Your task to perform on an android device: turn notification dots off Image 0: 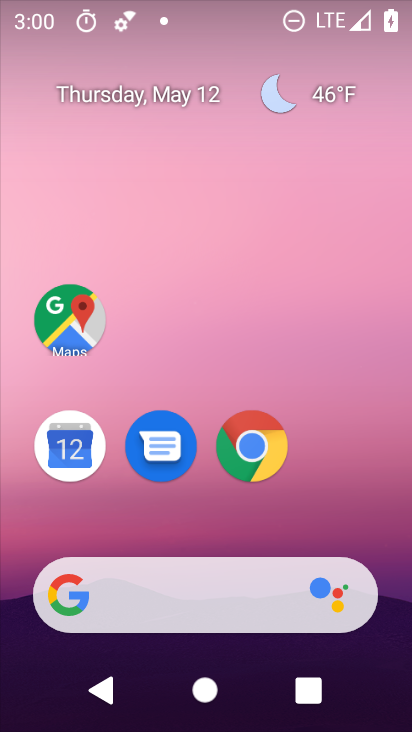
Step 0: drag from (200, 527) to (218, 190)
Your task to perform on an android device: turn notification dots off Image 1: 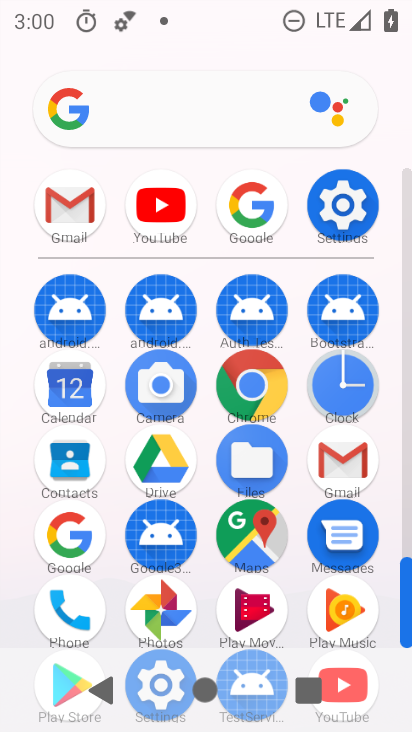
Step 1: click (314, 206)
Your task to perform on an android device: turn notification dots off Image 2: 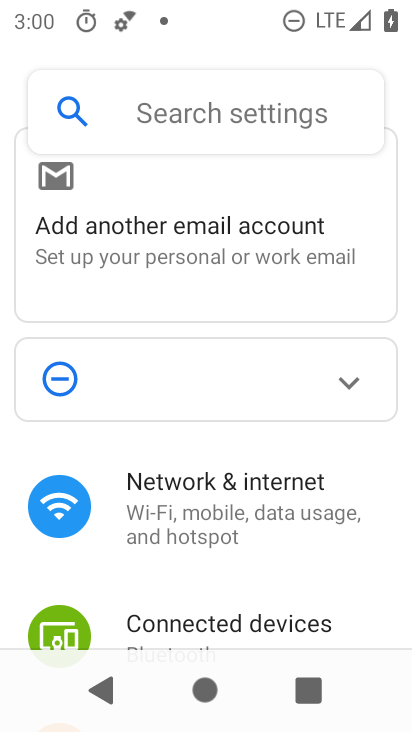
Step 2: drag from (249, 534) to (328, 245)
Your task to perform on an android device: turn notification dots off Image 3: 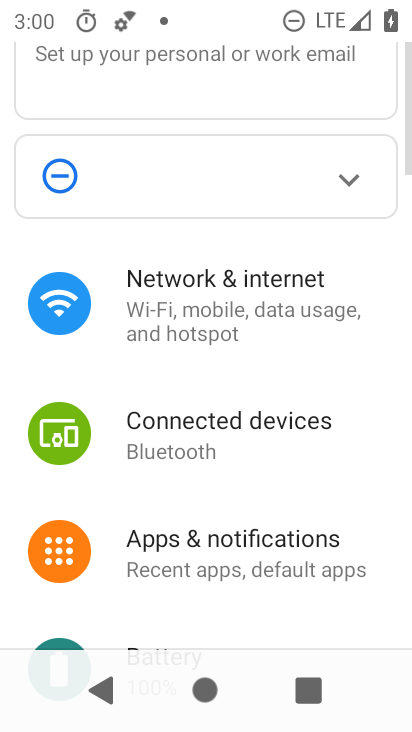
Step 3: drag from (290, 501) to (314, 272)
Your task to perform on an android device: turn notification dots off Image 4: 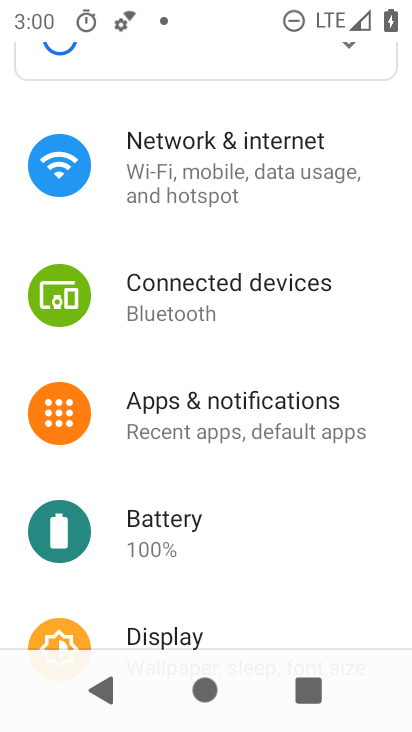
Step 4: click (250, 414)
Your task to perform on an android device: turn notification dots off Image 5: 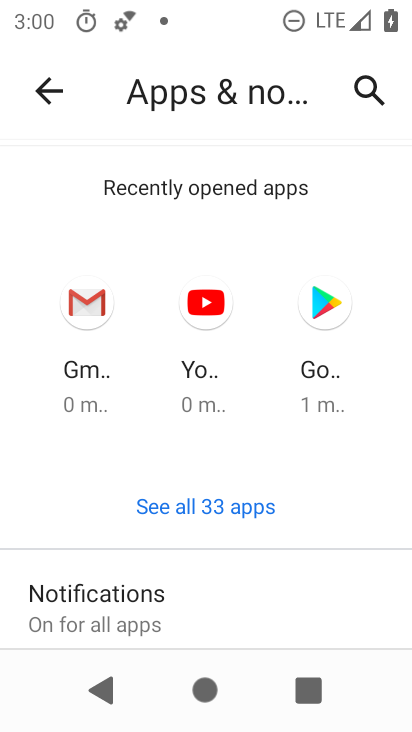
Step 5: click (168, 598)
Your task to perform on an android device: turn notification dots off Image 6: 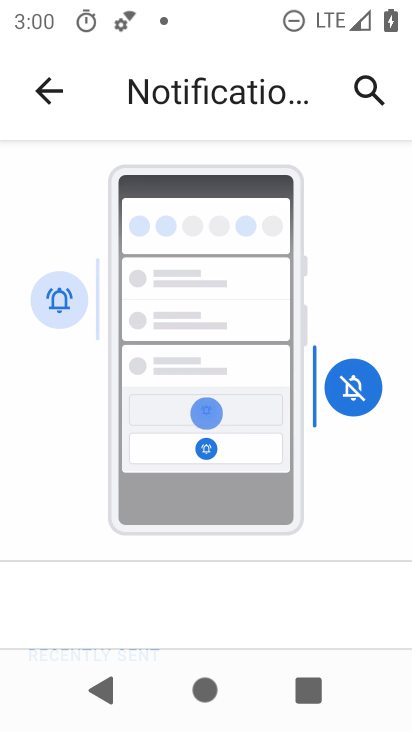
Step 6: drag from (189, 562) to (219, 272)
Your task to perform on an android device: turn notification dots off Image 7: 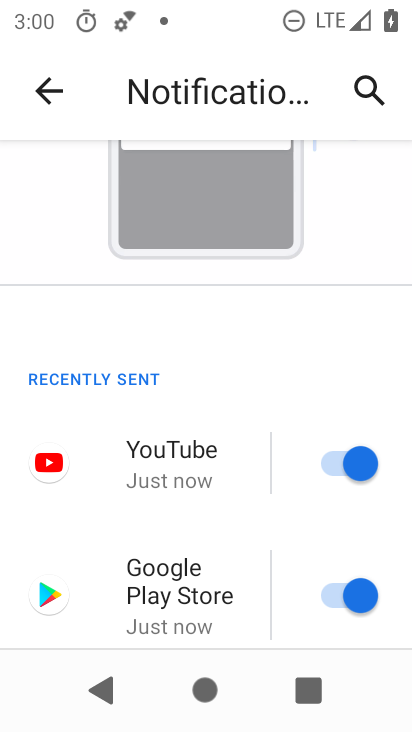
Step 7: drag from (237, 563) to (286, 227)
Your task to perform on an android device: turn notification dots off Image 8: 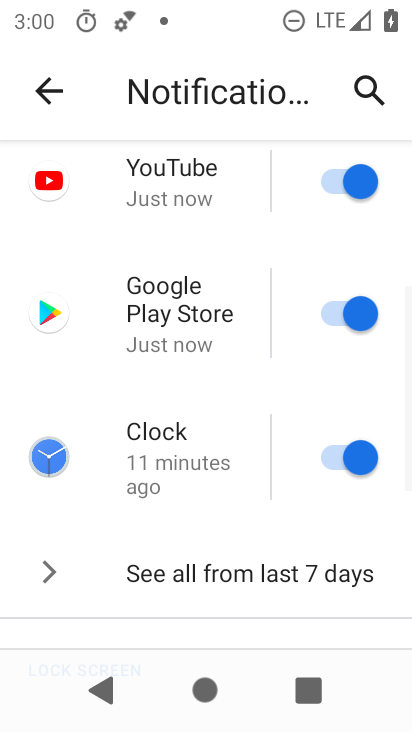
Step 8: drag from (292, 513) to (313, 194)
Your task to perform on an android device: turn notification dots off Image 9: 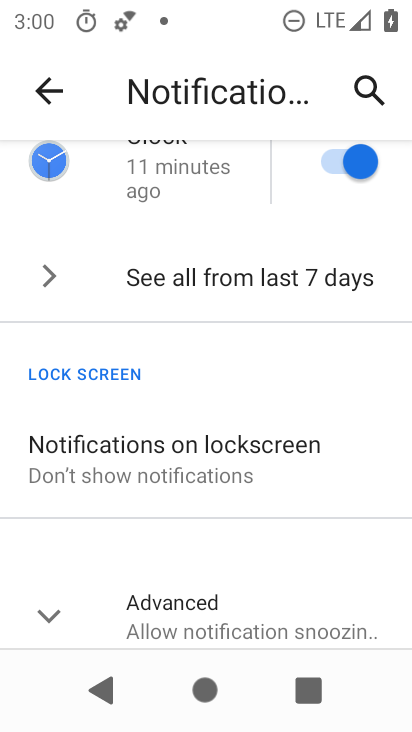
Step 9: drag from (321, 557) to (343, 305)
Your task to perform on an android device: turn notification dots off Image 10: 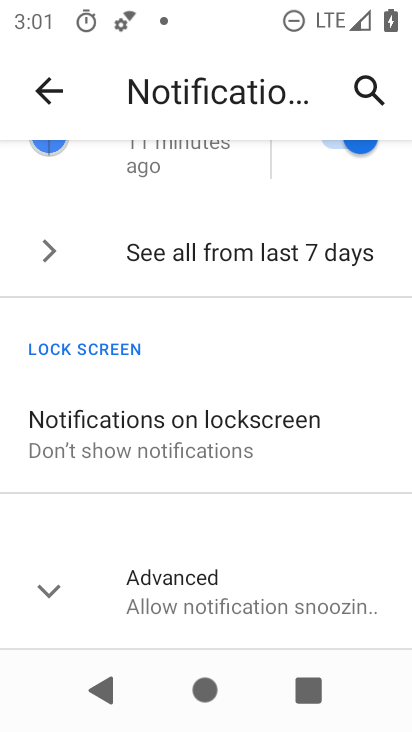
Step 10: click (293, 581)
Your task to perform on an android device: turn notification dots off Image 11: 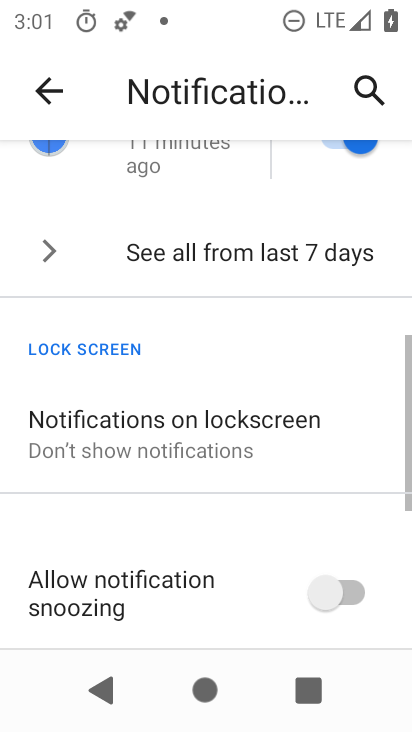
Step 11: drag from (277, 595) to (312, 264)
Your task to perform on an android device: turn notification dots off Image 12: 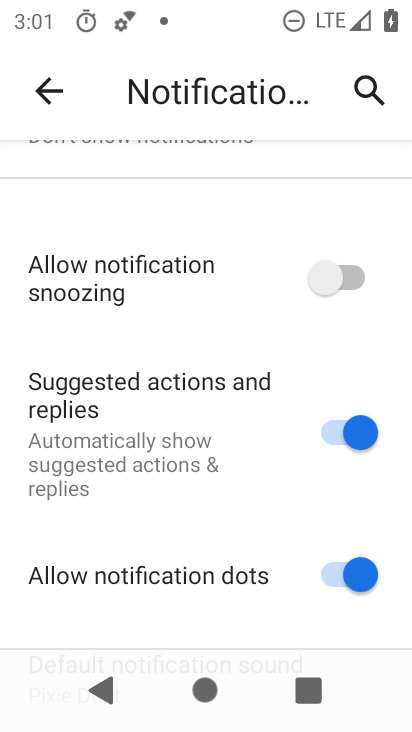
Step 12: click (339, 568)
Your task to perform on an android device: turn notification dots off Image 13: 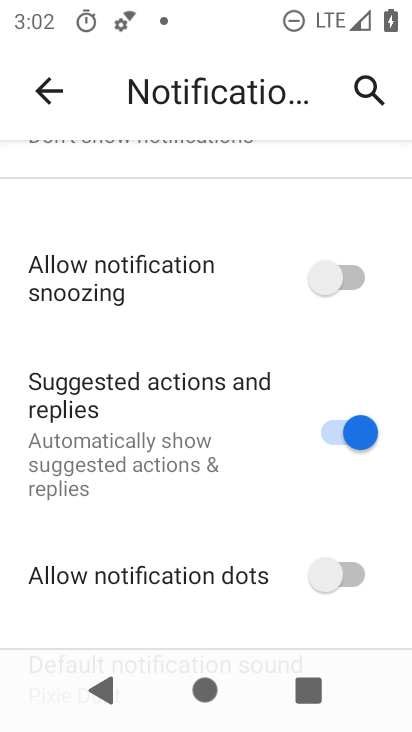
Step 13: task complete